Your task to perform on an android device: Open the stopwatch Image 0: 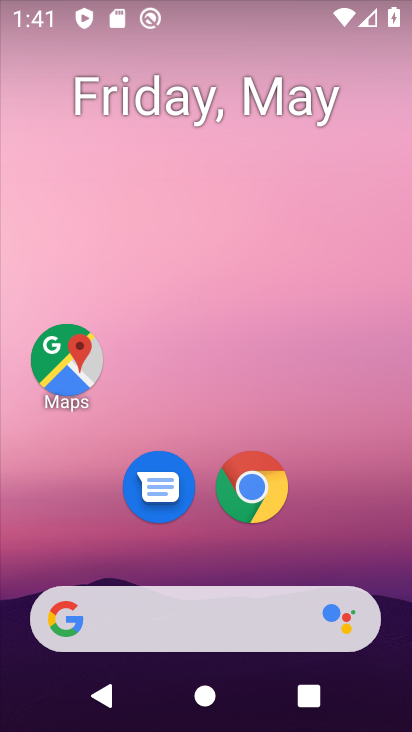
Step 0: drag from (378, 570) to (328, 41)
Your task to perform on an android device: Open the stopwatch Image 1: 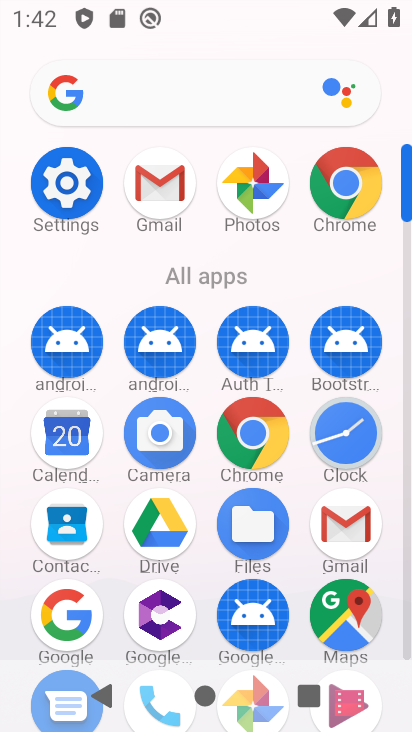
Step 1: click (342, 439)
Your task to perform on an android device: Open the stopwatch Image 2: 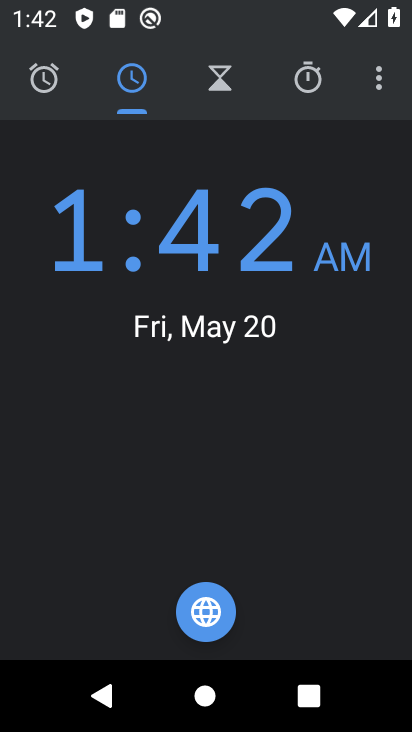
Step 2: click (314, 85)
Your task to perform on an android device: Open the stopwatch Image 3: 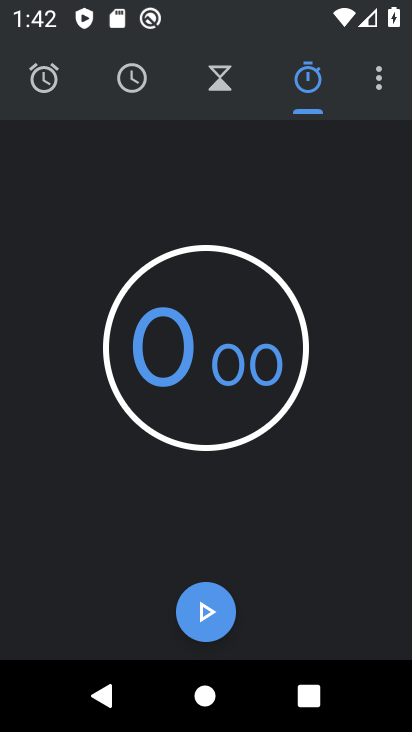
Step 3: task complete